Your task to perform on an android device: Go to Google maps Image 0: 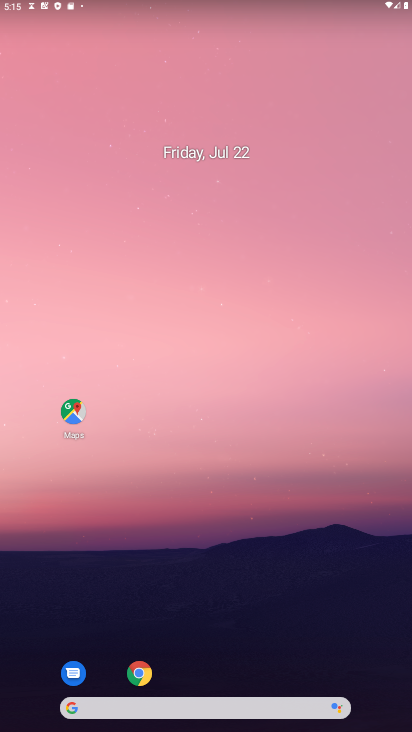
Step 0: press home button
Your task to perform on an android device: Go to Google maps Image 1: 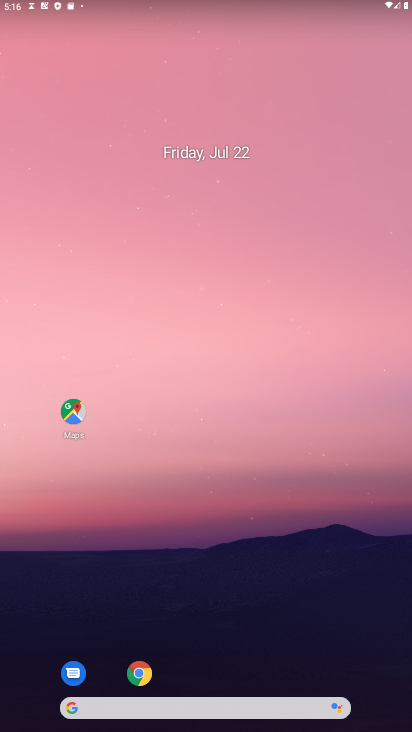
Step 1: drag from (214, 591) to (112, 10)
Your task to perform on an android device: Go to Google maps Image 2: 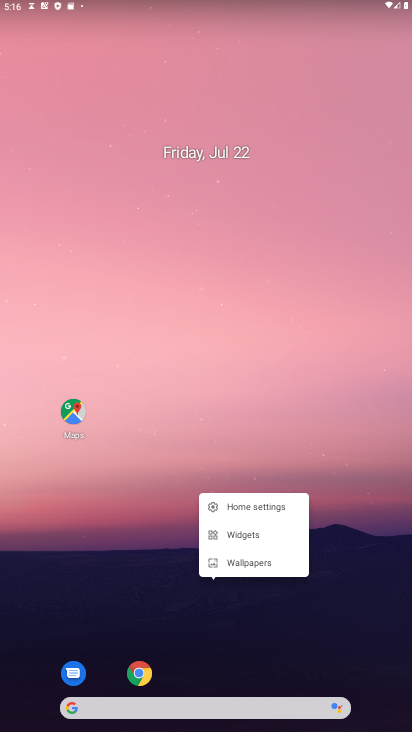
Step 2: drag from (312, 637) to (247, 10)
Your task to perform on an android device: Go to Google maps Image 3: 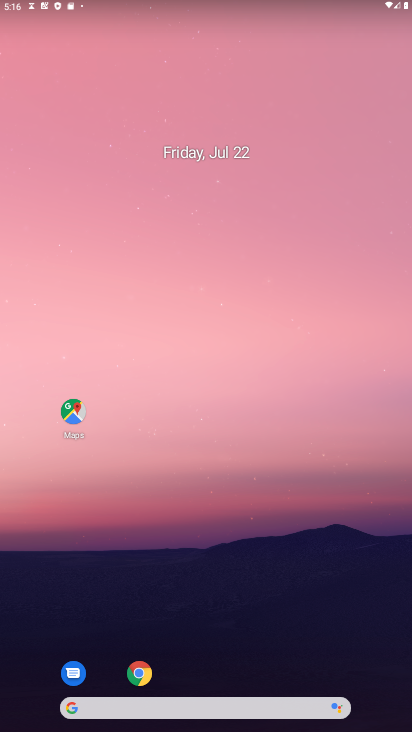
Step 3: drag from (255, 628) to (196, 144)
Your task to perform on an android device: Go to Google maps Image 4: 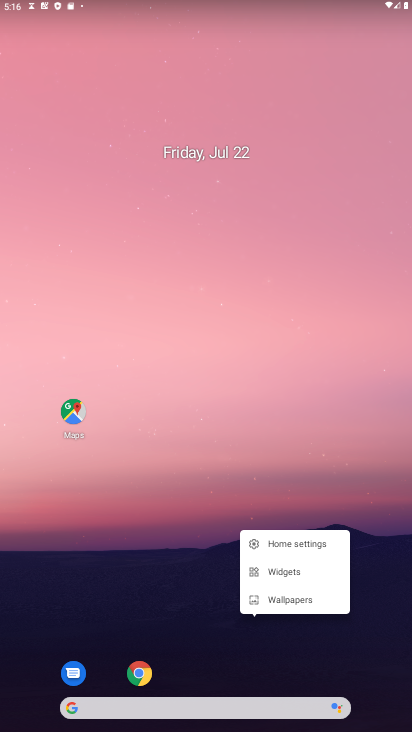
Step 4: click (178, 593)
Your task to perform on an android device: Go to Google maps Image 5: 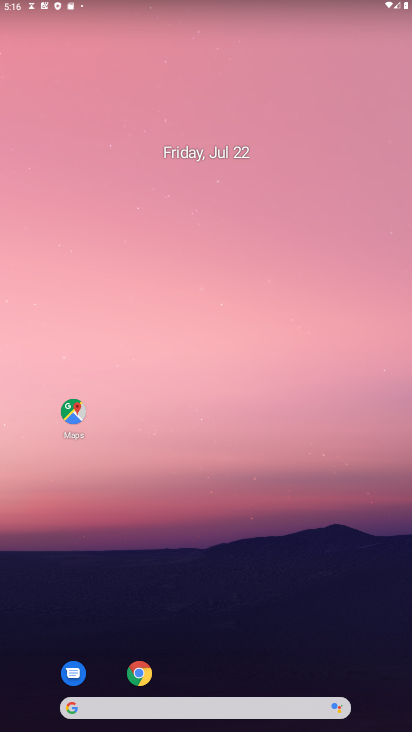
Step 5: drag from (253, 631) to (230, 86)
Your task to perform on an android device: Go to Google maps Image 6: 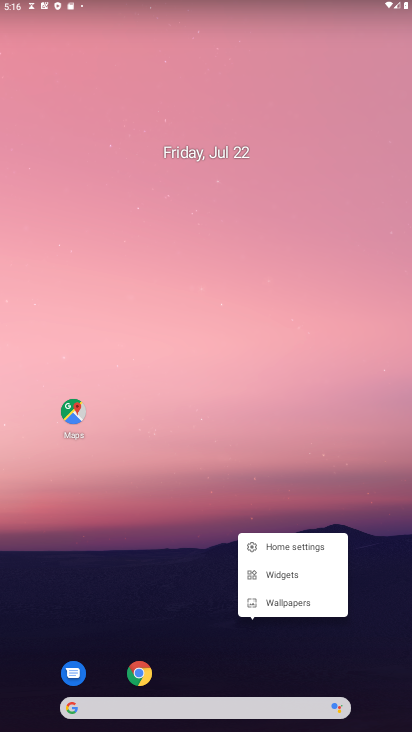
Step 6: click (357, 657)
Your task to perform on an android device: Go to Google maps Image 7: 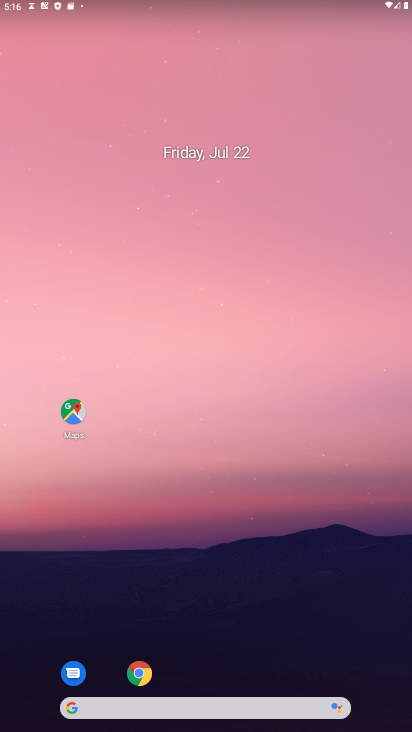
Step 7: drag from (269, 644) to (178, 31)
Your task to perform on an android device: Go to Google maps Image 8: 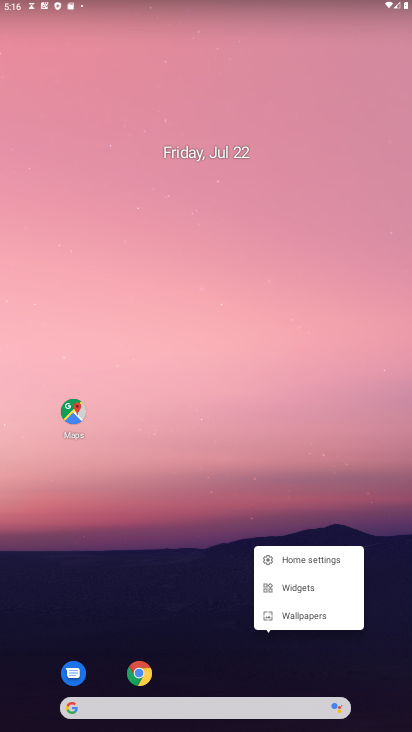
Step 8: drag from (142, 619) to (130, 178)
Your task to perform on an android device: Go to Google maps Image 9: 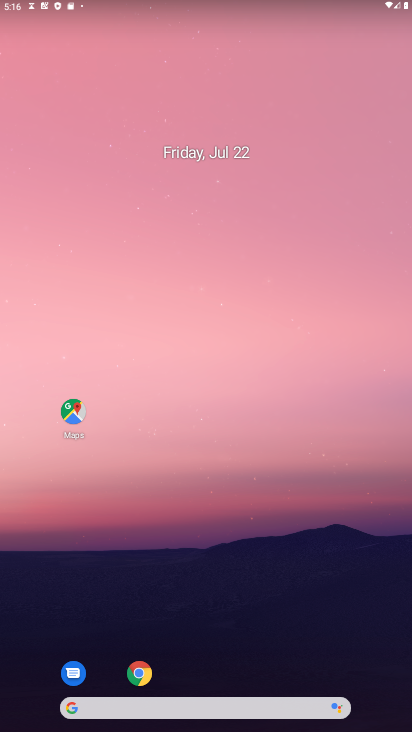
Step 9: drag from (290, 630) to (274, 157)
Your task to perform on an android device: Go to Google maps Image 10: 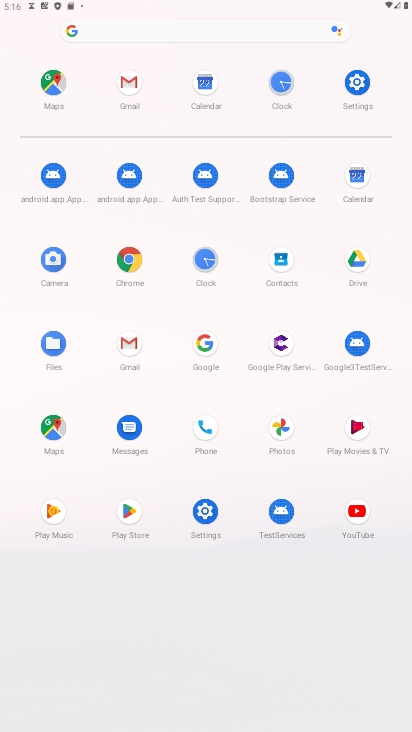
Step 10: click (51, 78)
Your task to perform on an android device: Go to Google maps Image 11: 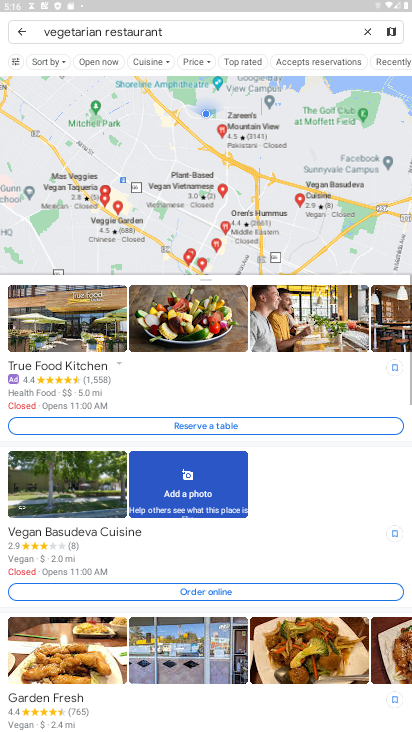
Step 11: click (365, 31)
Your task to perform on an android device: Go to Google maps Image 12: 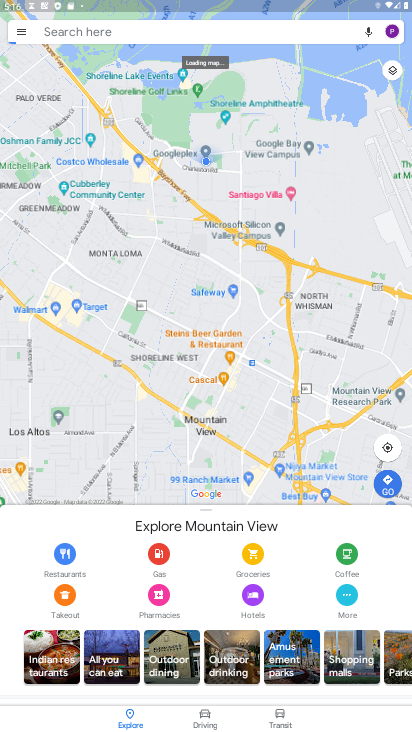
Step 12: task complete